Your task to perform on an android device: find which apps use the phone's location Image 0: 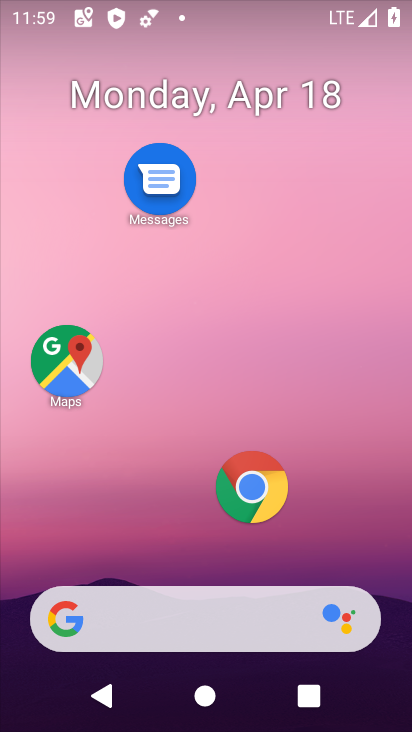
Step 0: drag from (180, 537) to (114, 170)
Your task to perform on an android device: find which apps use the phone's location Image 1: 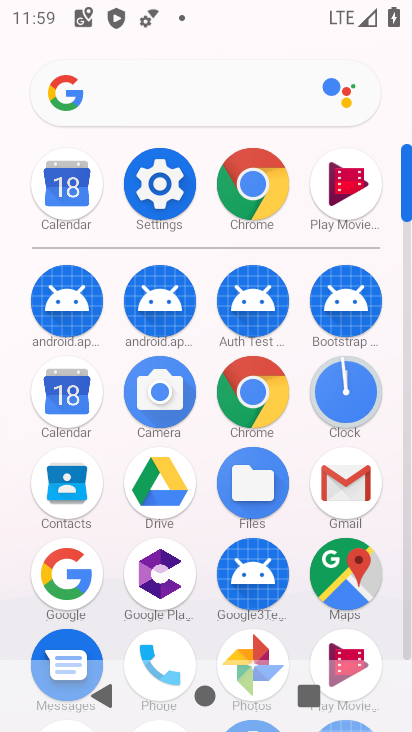
Step 1: click (153, 180)
Your task to perform on an android device: find which apps use the phone's location Image 2: 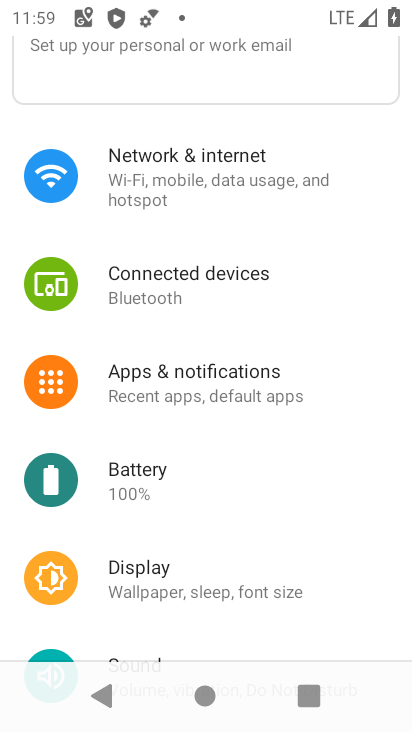
Step 2: drag from (203, 521) to (174, 160)
Your task to perform on an android device: find which apps use the phone's location Image 3: 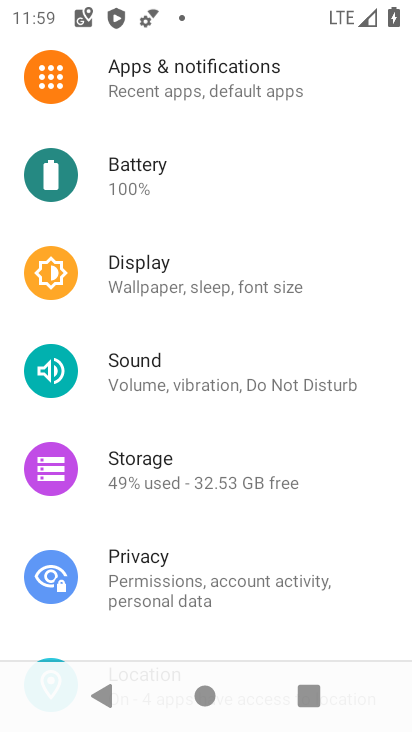
Step 3: drag from (180, 543) to (118, 70)
Your task to perform on an android device: find which apps use the phone's location Image 4: 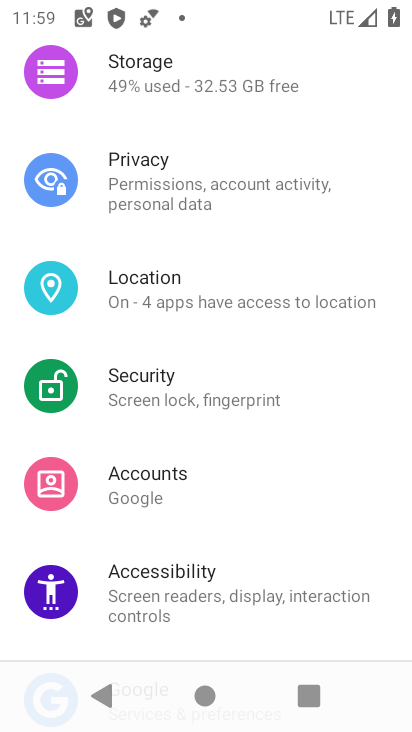
Step 4: click (126, 271)
Your task to perform on an android device: find which apps use the phone's location Image 5: 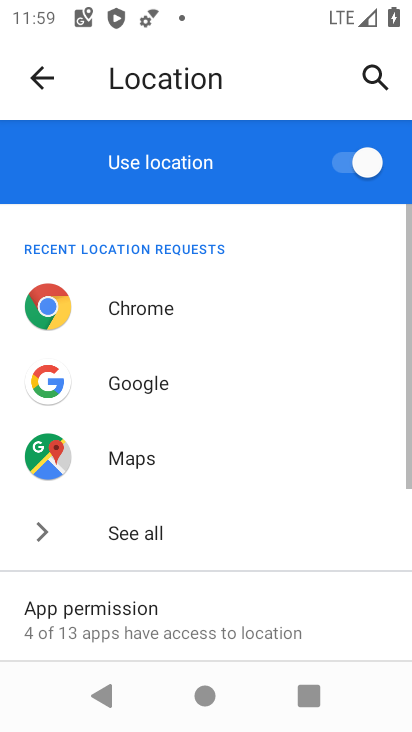
Step 5: click (34, 526)
Your task to perform on an android device: find which apps use the phone's location Image 6: 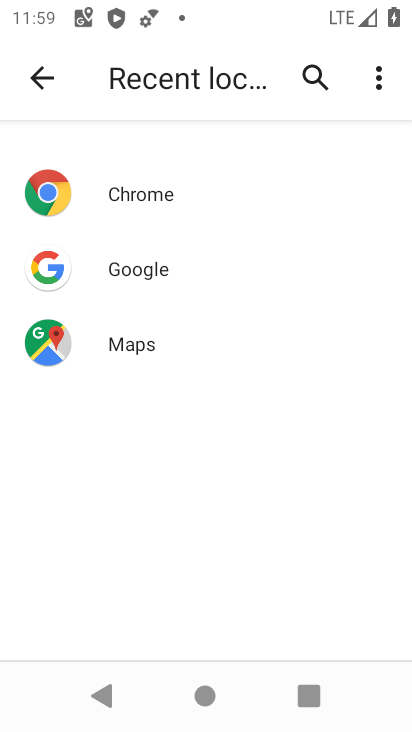
Step 6: task complete